Your task to perform on an android device: turn on javascript in the chrome app Image 0: 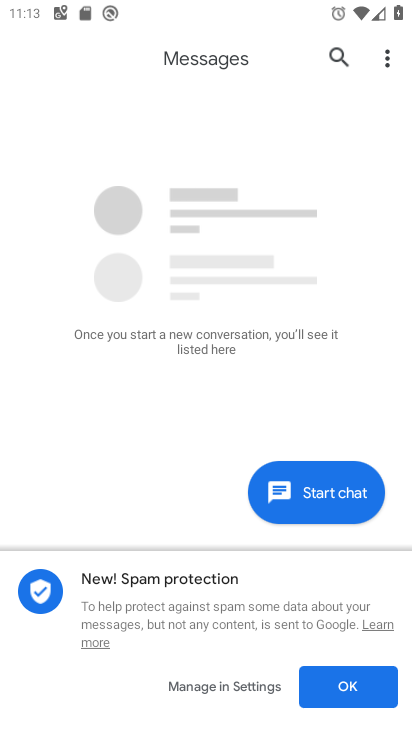
Step 0: press home button
Your task to perform on an android device: turn on javascript in the chrome app Image 1: 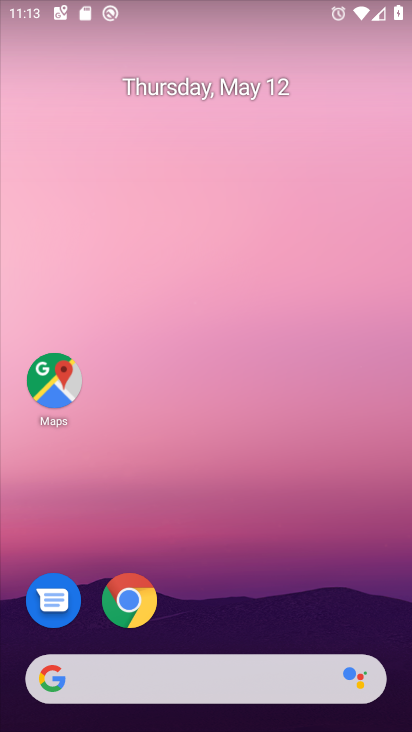
Step 1: click (145, 600)
Your task to perform on an android device: turn on javascript in the chrome app Image 2: 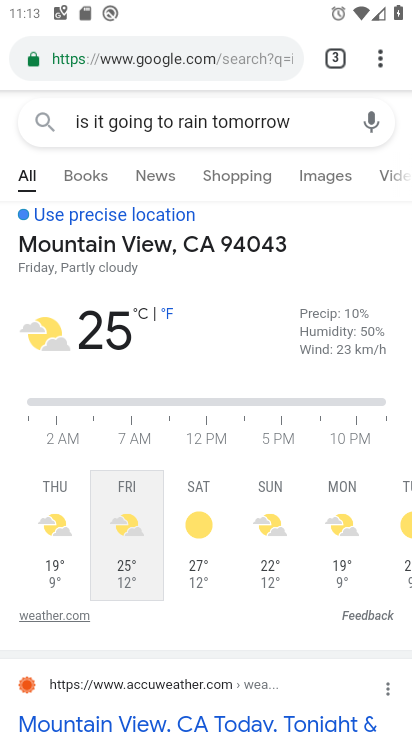
Step 2: click (381, 59)
Your task to perform on an android device: turn on javascript in the chrome app Image 3: 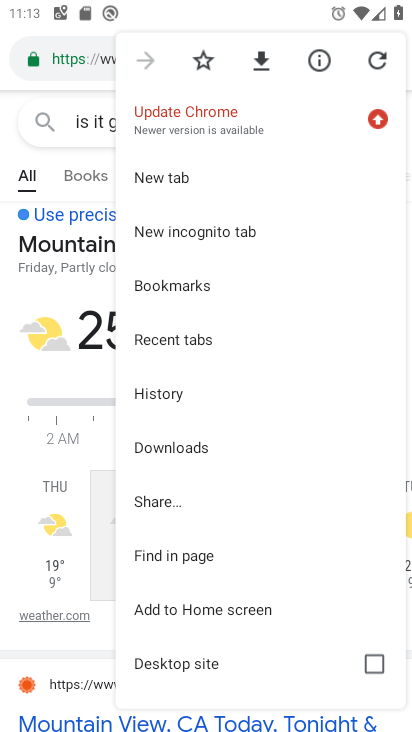
Step 3: drag from (195, 644) to (226, 333)
Your task to perform on an android device: turn on javascript in the chrome app Image 4: 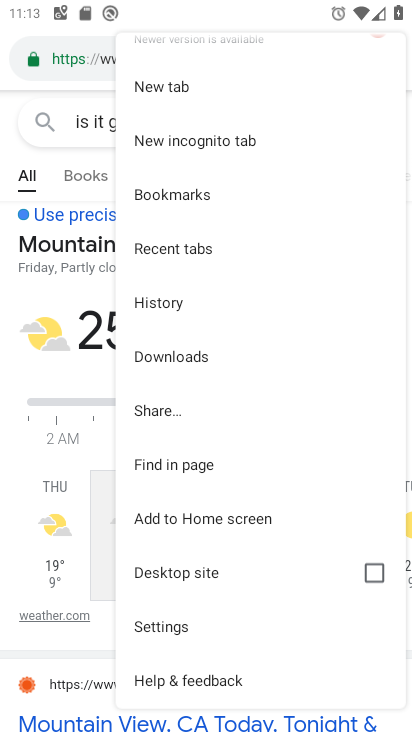
Step 4: click (177, 621)
Your task to perform on an android device: turn on javascript in the chrome app Image 5: 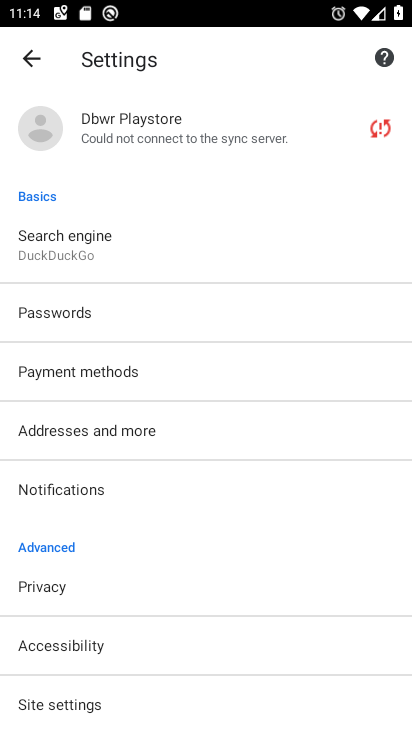
Step 5: drag from (114, 693) to (122, 535)
Your task to perform on an android device: turn on javascript in the chrome app Image 6: 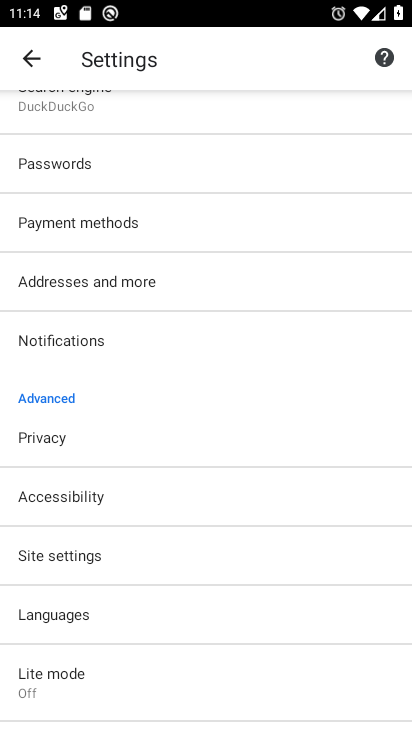
Step 6: click (66, 559)
Your task to perform on an android device: turn on javascript in the chrome app Image 7: 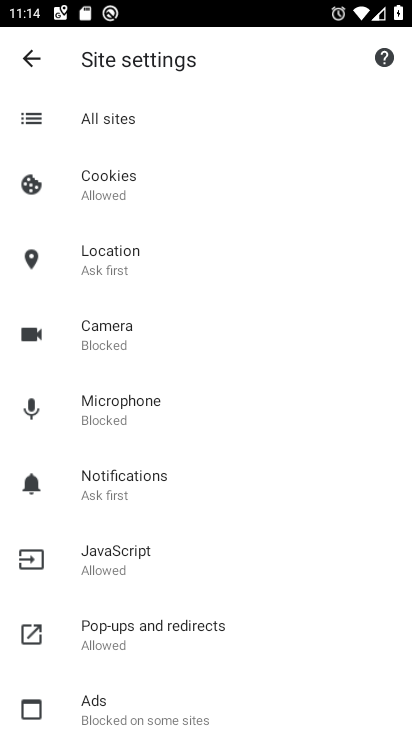
Step 7: click (123, 551)
Your task to perform on an android device: turn on javascript in the chrome app Image 8: 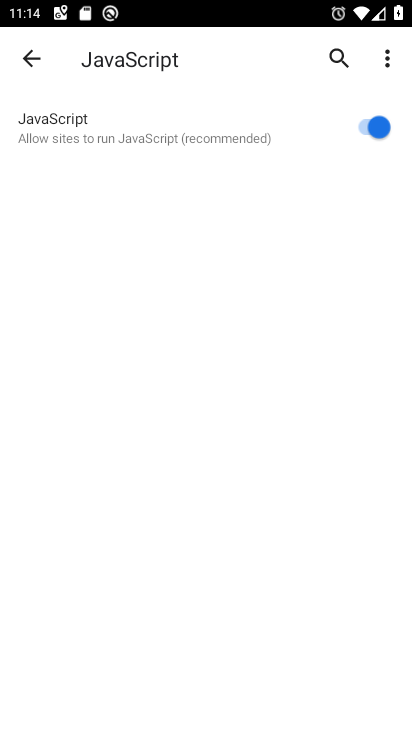
Step 8: task complete